Your task to perform on an android device: Go to calendar. Show me events next week Image 0: 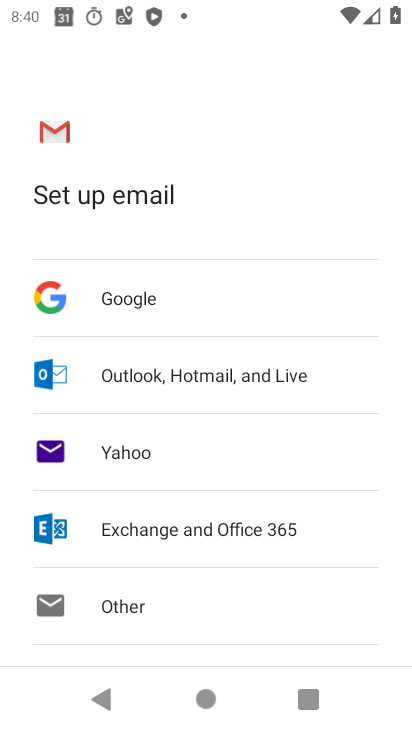
Step 0: press home button
Your task to perform on an android device: Go to calendar. Show me events next week Image 1: 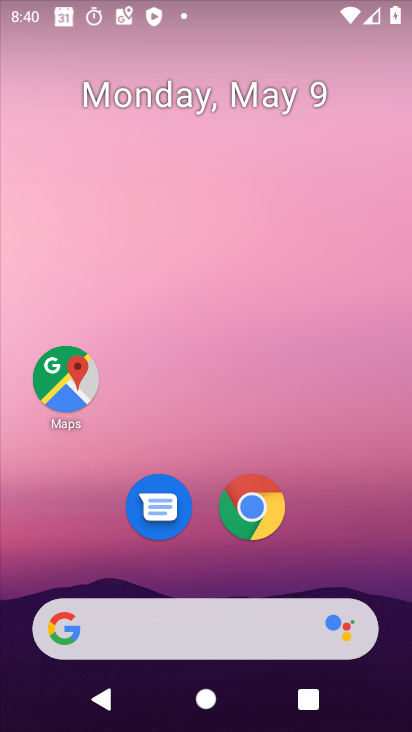
Step 1: drag from (255, 658) to (226, 271)
Your task to perform on an android device: Go to calendar. Show me events next week Image 2: 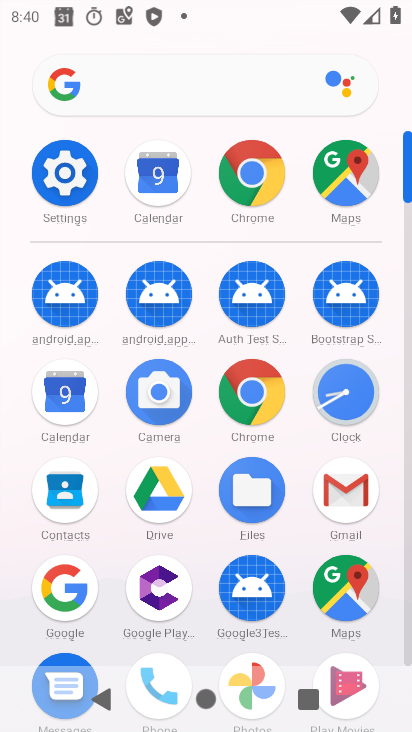
Step 2: click (70, 409)
Your task to perform on an android device: Go to calendar. Show me events next week Image 3: 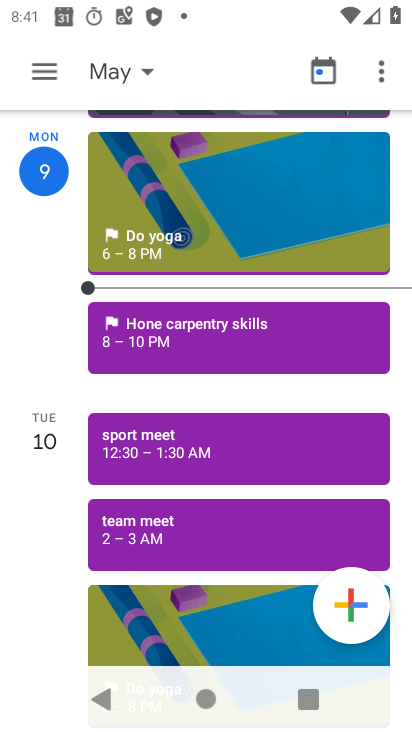
Step 3: click (39, 97)
Your task to perform on an android device: Go to calendar. Show me events next week Image 4: 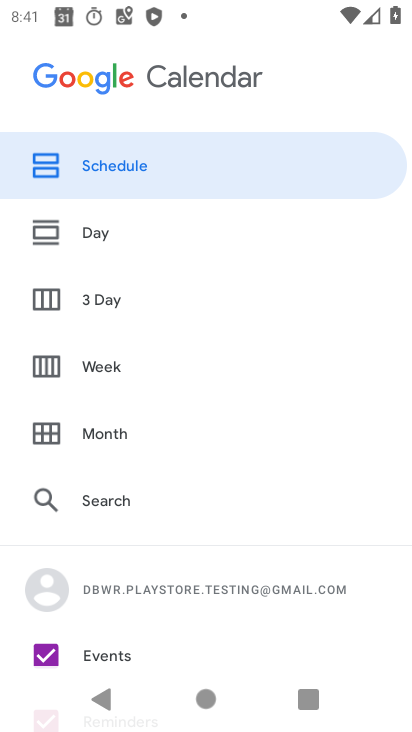
Step 4: click (110, 441)
Your task to perform on an android device: Go to calendar. Show me events next week Image 5: 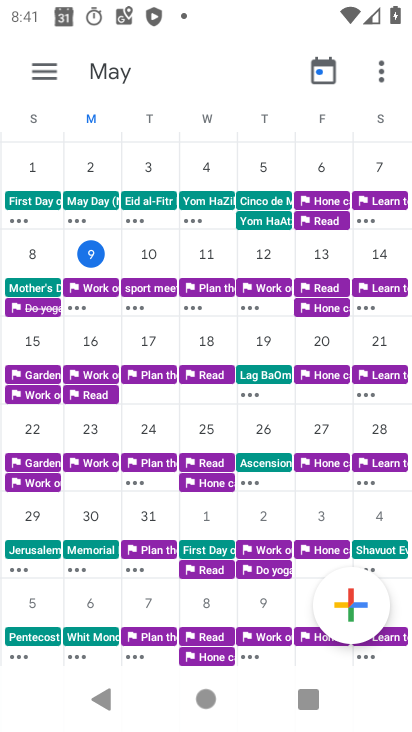
Step 5: click (77, 353)
Your task to perform on an android device: Go to calendar. Show me events next week Image 6: 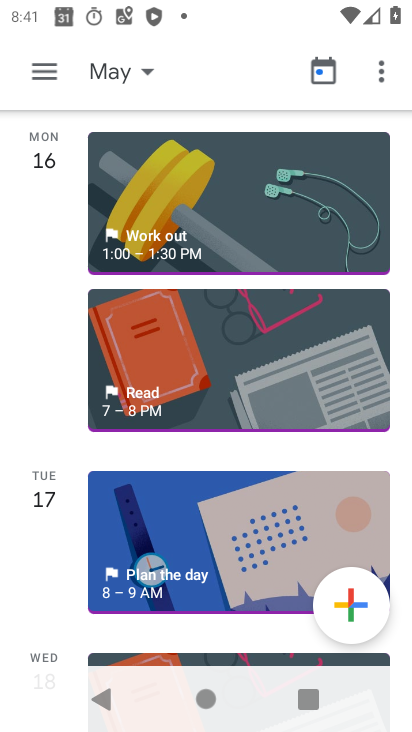
Step 6: task complete